Your task to perform on an android device: turn on notifications settings in the gmail app Image 0: 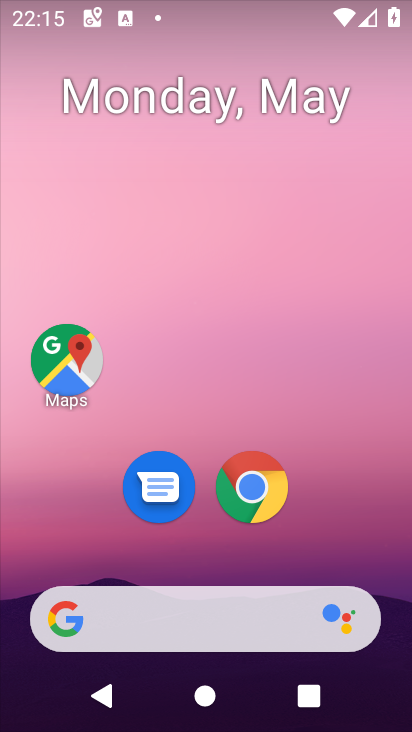
Step 0: click (196, 192)
Your task to perform on an android device: turn on notifications settings in the gmail app Image 1: 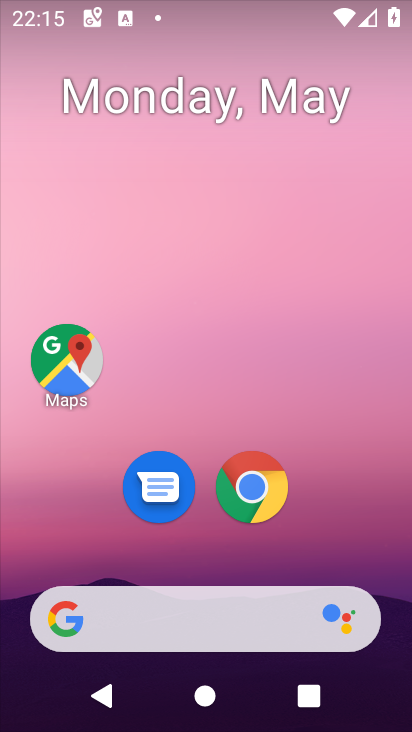
Step 1: drag from (188, 547) to (176, 179)
Your task to perform on an android device: turn on notifications settings in the gmail app Image 2: 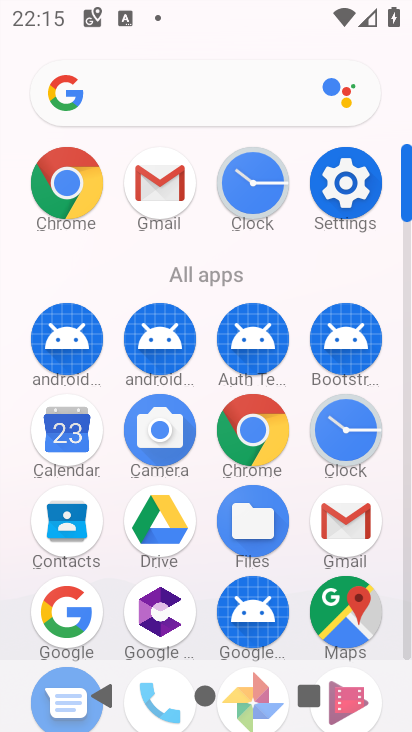
Step 2: click (343, 209)
Your task to perform on an android device: turn on notifications settings in the gmail app Image 3: 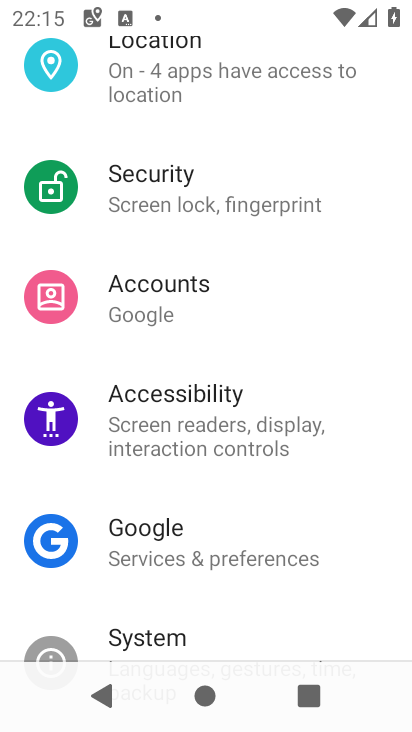
Step 3: drag from (157, 146) to (171, 645)
Your task to perform on an android device: turn on notifications settings in the gmail app Image 4: 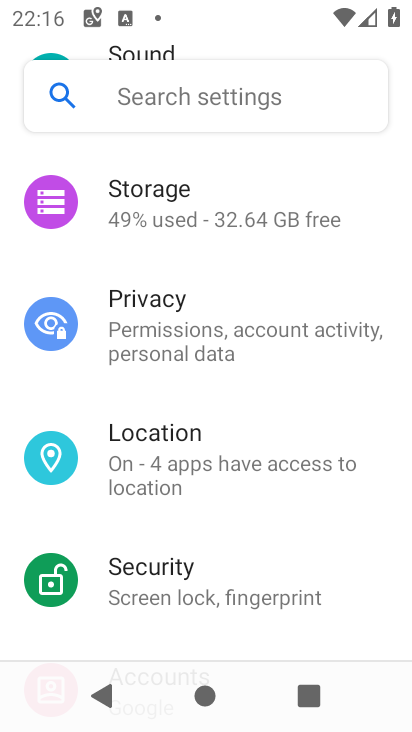
Step 4: drag from (172, 539) to (215, 147)
Your task to perform on an android device: turn on notifications settings in the gmail app Image 5: 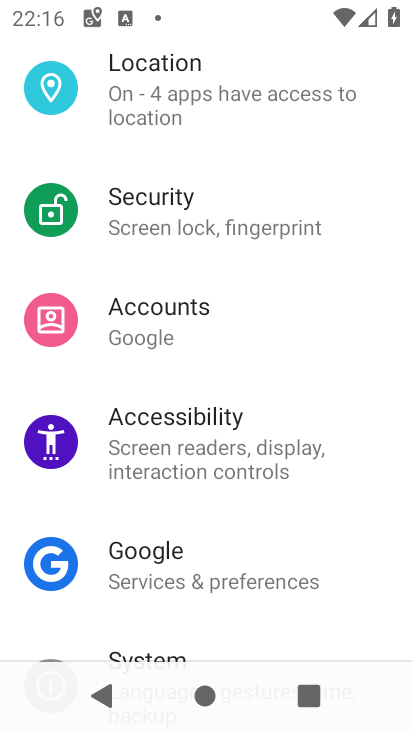
Step 5: drag from (145, 608) to (181, 203)
Your task to perform on an android device: turn on notifications settings in the gmail app Image 6: 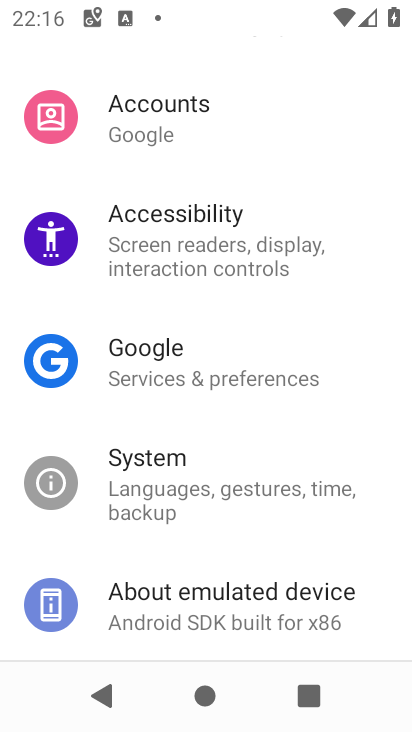
Step 6: drag from (258, 140) to (278, 552)
Your task to perform on an android device: turn on notifications settings in the gmail app Image 7: 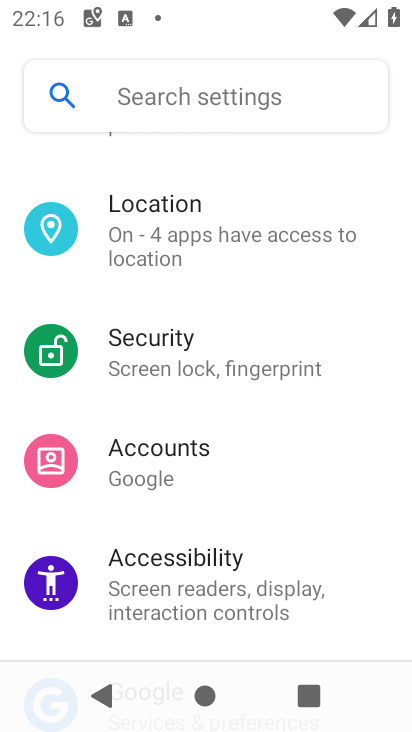
Step 7: drag from (203, 273) to (204, 634)
Your task to perform on an android device: turn on notifications settings in the gmail app Image 8: 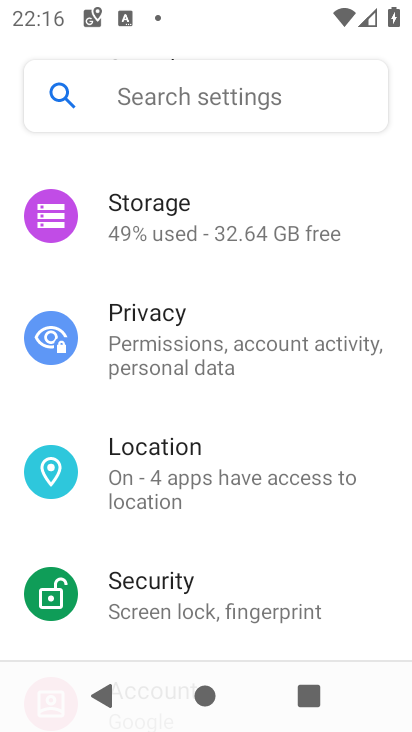
Step 8: drag from (164, 531) to (163, 256)
Your task to perform on an android device: turn on notifications settings in the gmail app Image 9: 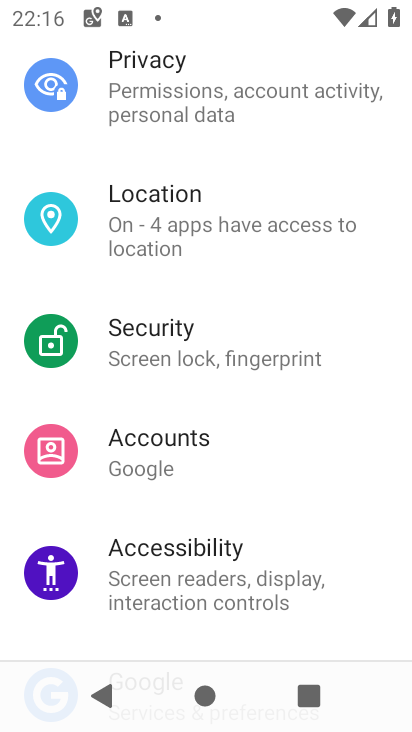
Step 9: drag from (210, 178) to (207, 524)
Your task to perform on an android device: turn on notifications settings in the gmail app Image 10: 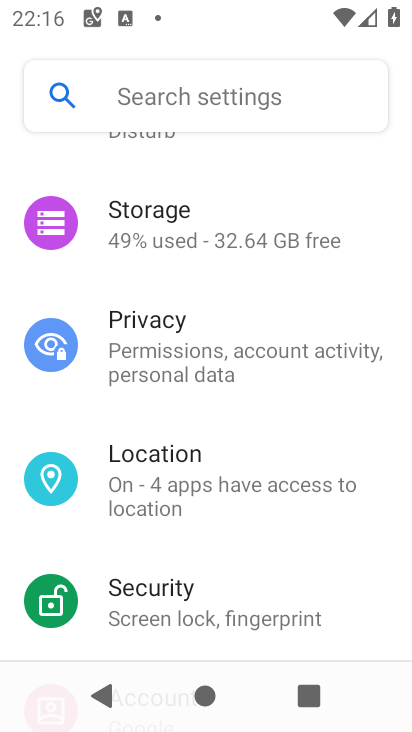
Step 10: drag from (195, 226) to (233, 554)
Your task to perform on an android device: turn on notifications settings in the gmail app Image 11: 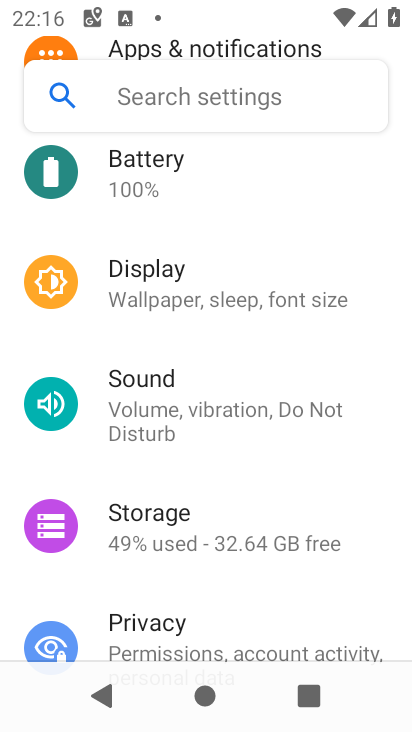
Step 11: drag from (195, 196) to (199, 613)
Your task to perform on an android device: turn on notifications settings in the gmail app Image 12: 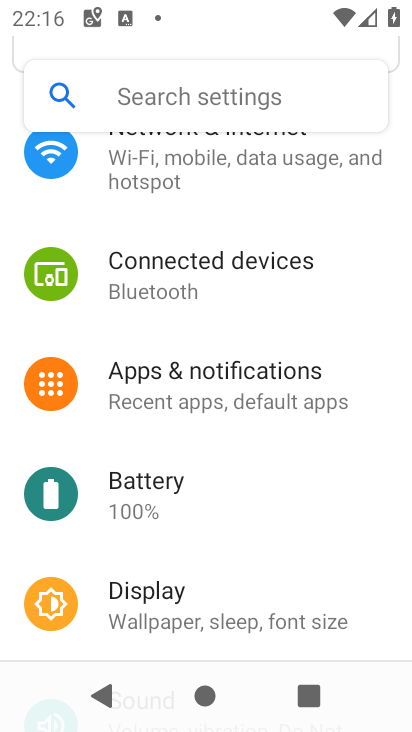
Step 12: click (211, 382)
Your task to perform on an android device: turn on notifications settings in the gmail app Image 13: 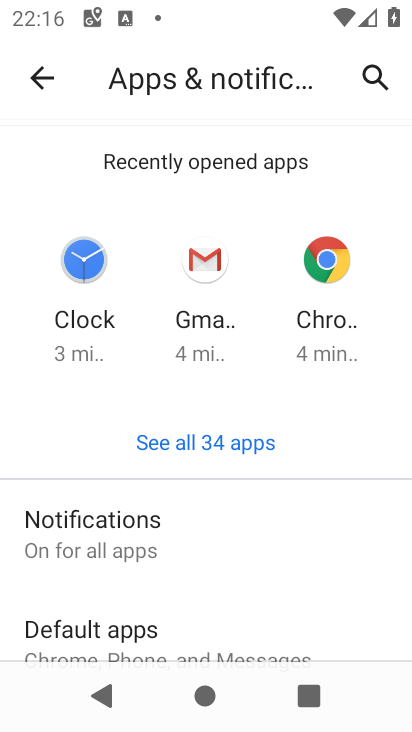
Step 13: click (161, 537)
Your task to perform on an android device: turn on notifications settings in the gmail app Image 14: 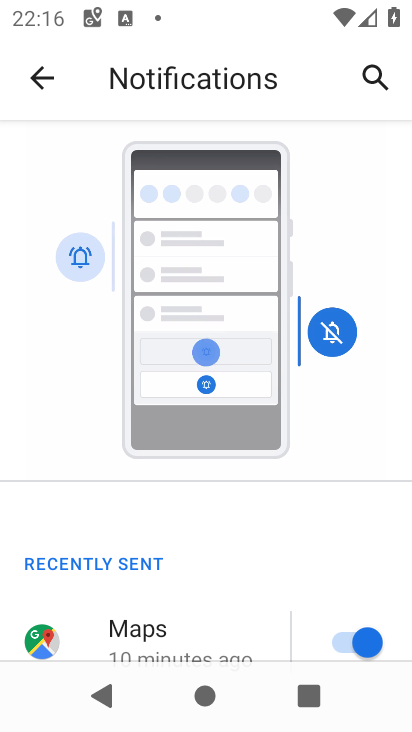
Step 14: drag from (164, 598) to (207, 92)
Your task to perform on an android device: turn on notifications settings in the gmail app Image 15: 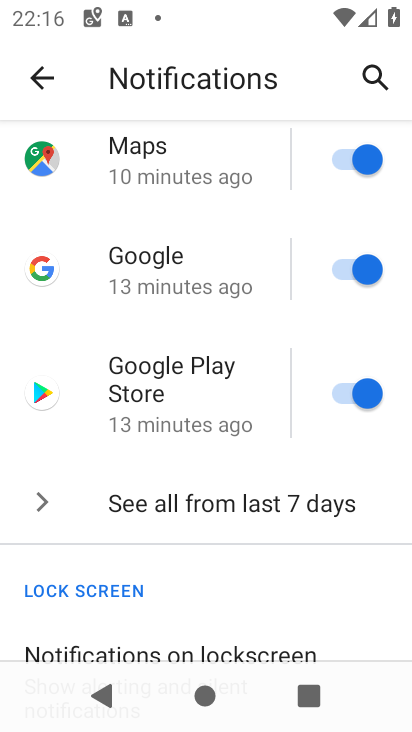
Step 15: drag from (138, 608) to (198, 120)
Your task to perform on an android device: turn on notifications settings in the gmail app Image 16: 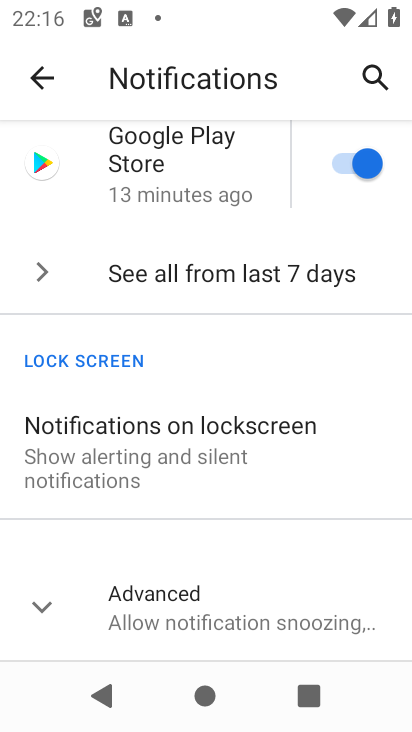
Step 16: drag from (186, 232) to (205, 674)
Your task to perform on an android device: turn on notifications settings in the gmail app Image 17: 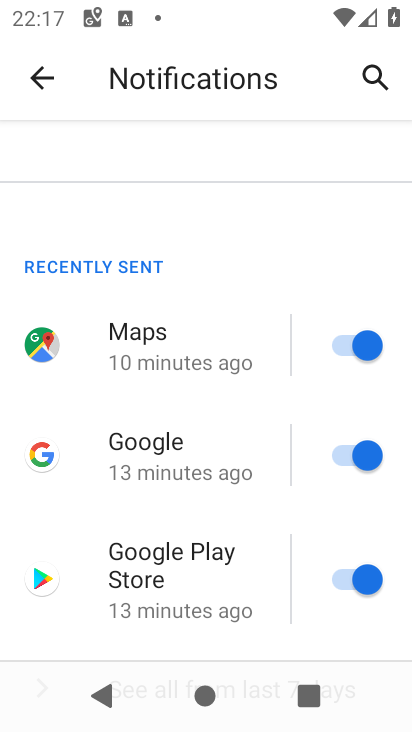
Step 17: drag from (213, 276) to (234, 634)
Your task to perform on an android device: turn on notifications settings in the gmail app Image 18: 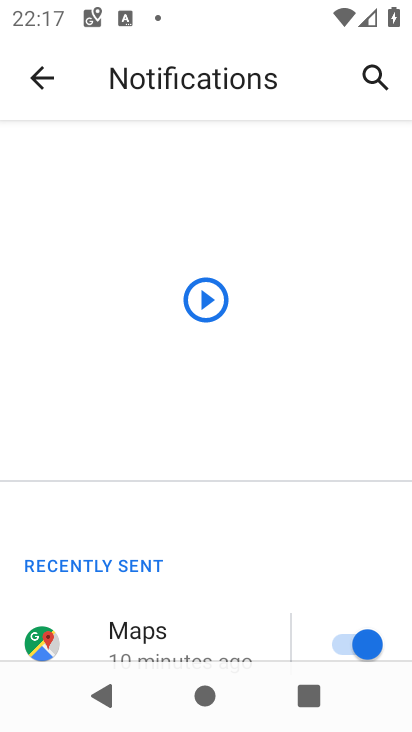
Step 18: drag from (161, 544) to (177, 96)
Your task to perform on an android device: turn on notifications settings in the gmail app Image 19: 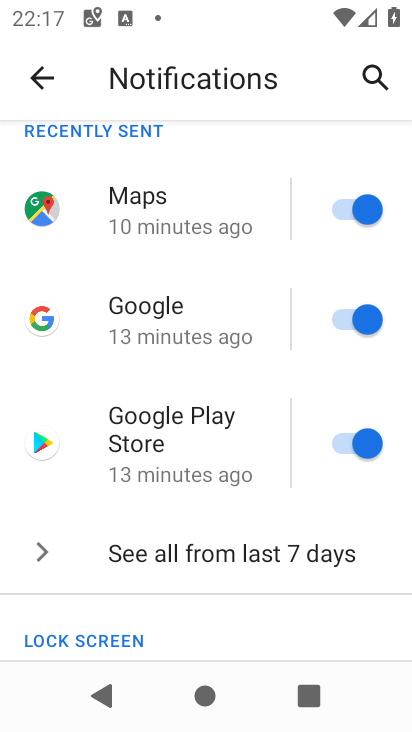
Step 19: click (39, 78)
Your task to perform on an android device: turn on notifications settings in the gmail app Image 20: 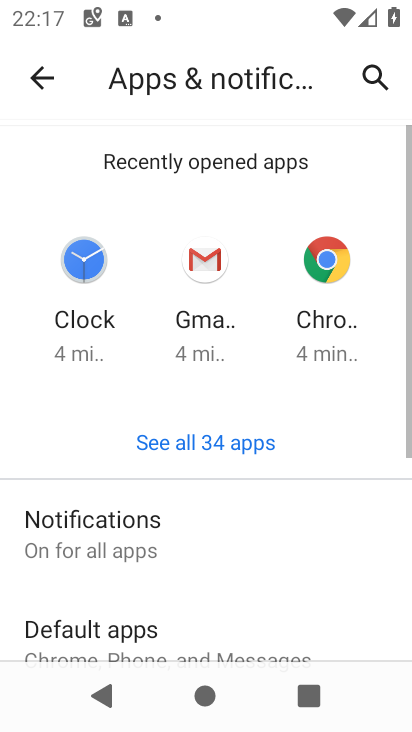
Step 20: click (230, 280)
Your task to perform on an android device: turn on notifications settings in the gmail app Image 21: 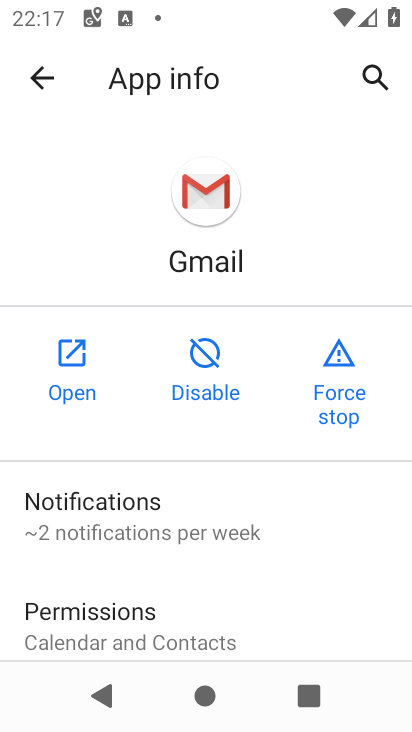
Step 21: click (92, 525)
Your task to perform on an android device: turn on notifications settings in the gmail app Image 22: 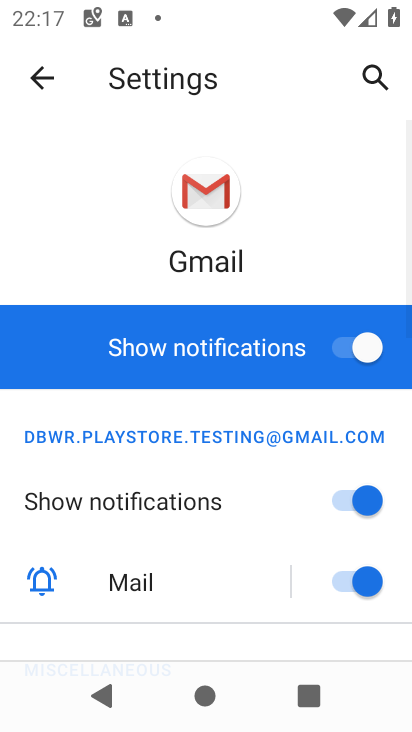
Step 22: task complete